Your task to perform on an android device: Open calendar and show me the second week of next month Image 0: 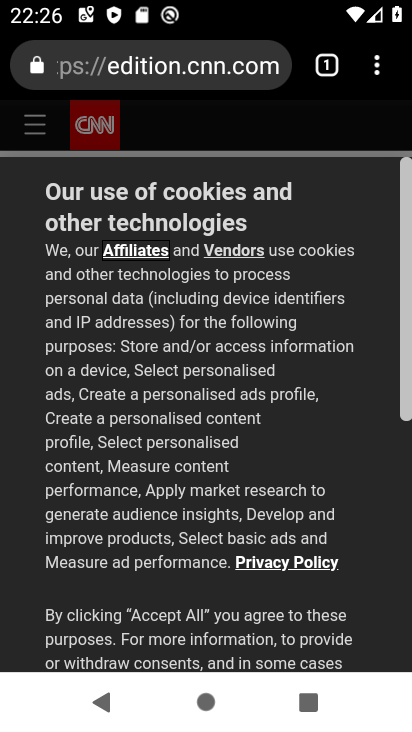
Step 0: press home button
Your task to perform on an android device: Open calendar and show me the second week of next month Image 1: 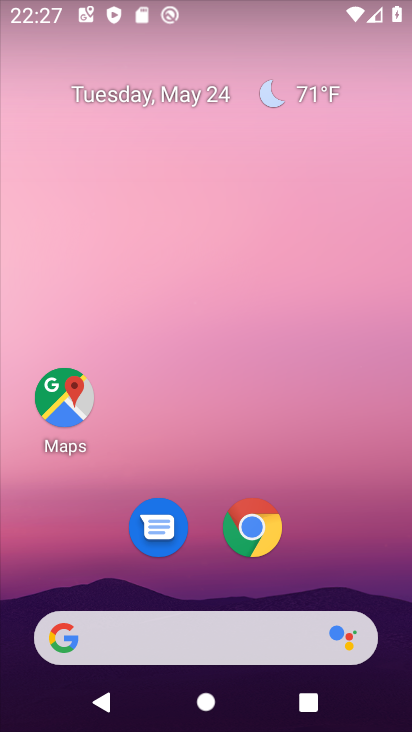
Step 1: drag from (311, 575) to (332, 70)
Your task to perform on an android device: Open calendar and show me the second week of next month Image 2: 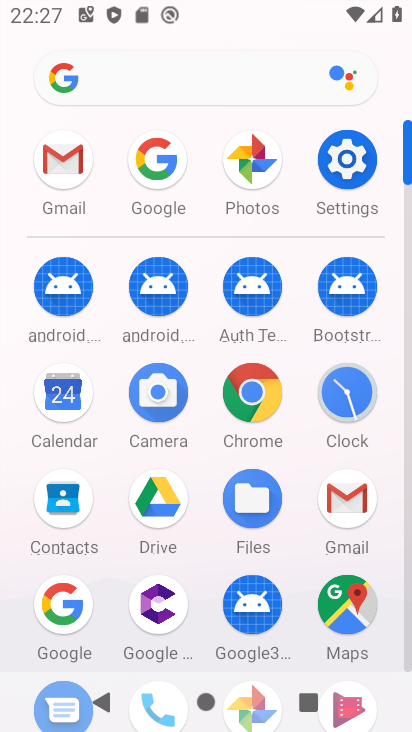
Step 2: click (55, 402)
Your task to perform on an android device: Open calendar and show me the second week of next month Image 3: 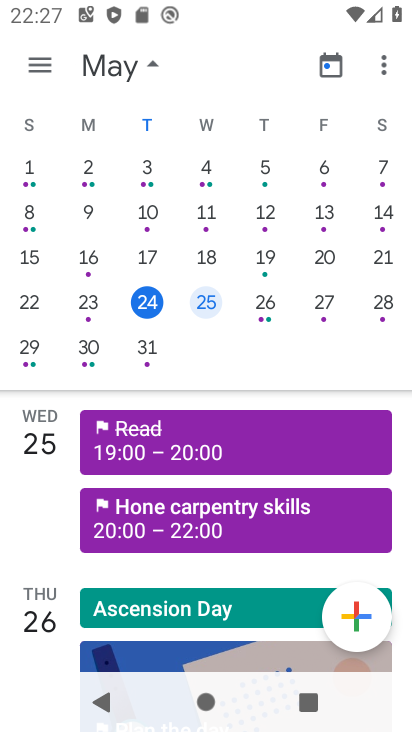
Step 3: drag from (317, 310) to (136, 273)
Your task to perform on an android device: Open calendar and show me the second week of next month Image 4: 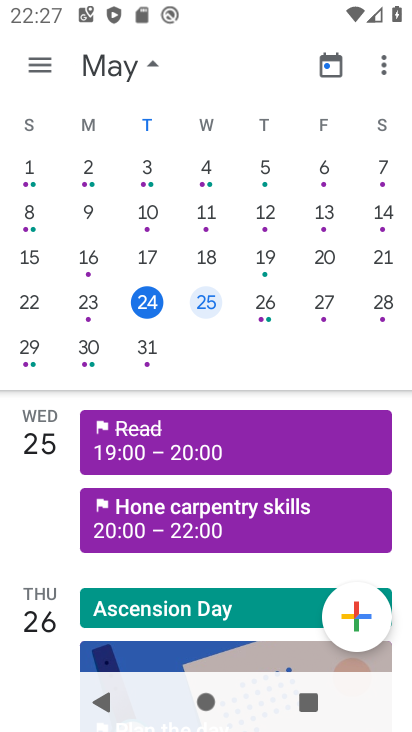
Step 4: drag from (388, 275) to (192, 226)
Your task to perform on an android device: Open calendar and show me the second week of next month Image 5: 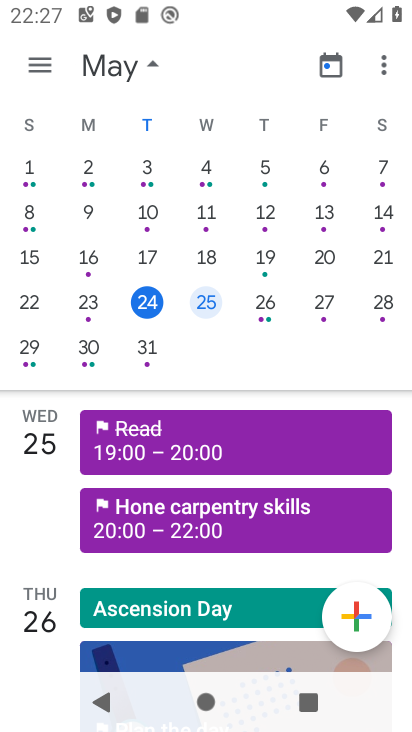
Step 5: drag from (363, 251) to (20, 305)
Your task to perform on an android device: Open calendar and show me the second week of next month Image 6: 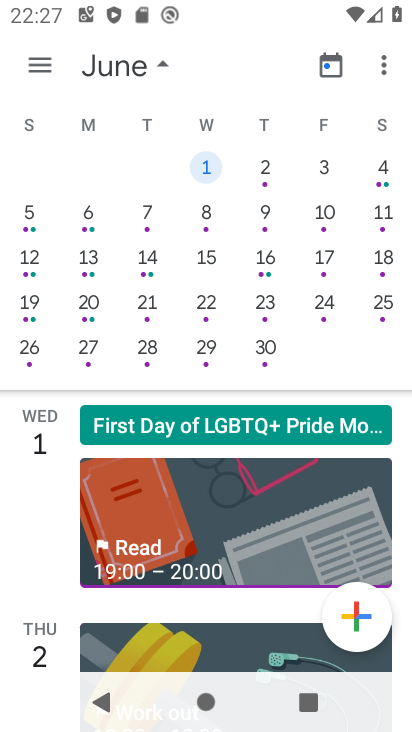
Step 6: click (36, 223)
Your task to perform on an android device: Open calendar and show me the second week of next month Image 7: 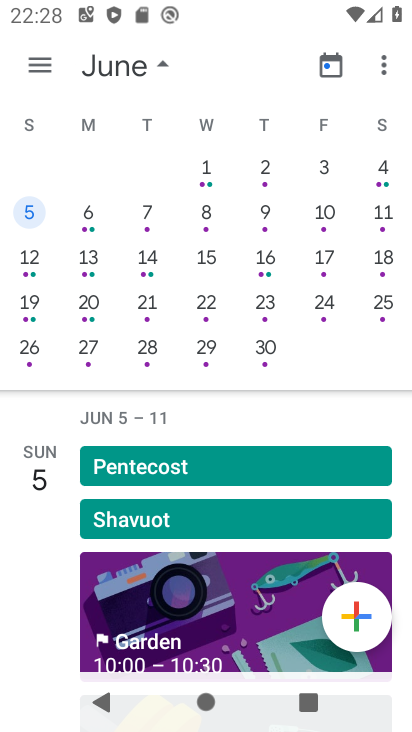
Step 7: task complete